Your task to perform on an android device: install app "Booking.com: Hotels and more" Image 0: 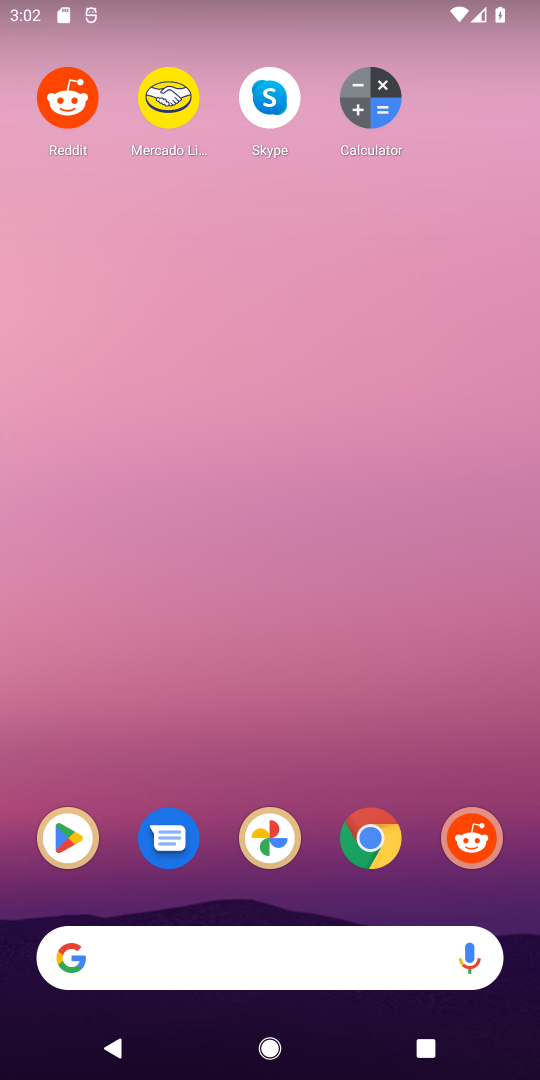
Step 0: click (72, 823)
Your task to perform on an android device: install app "Booking.com: Hotels and more" Image 1: 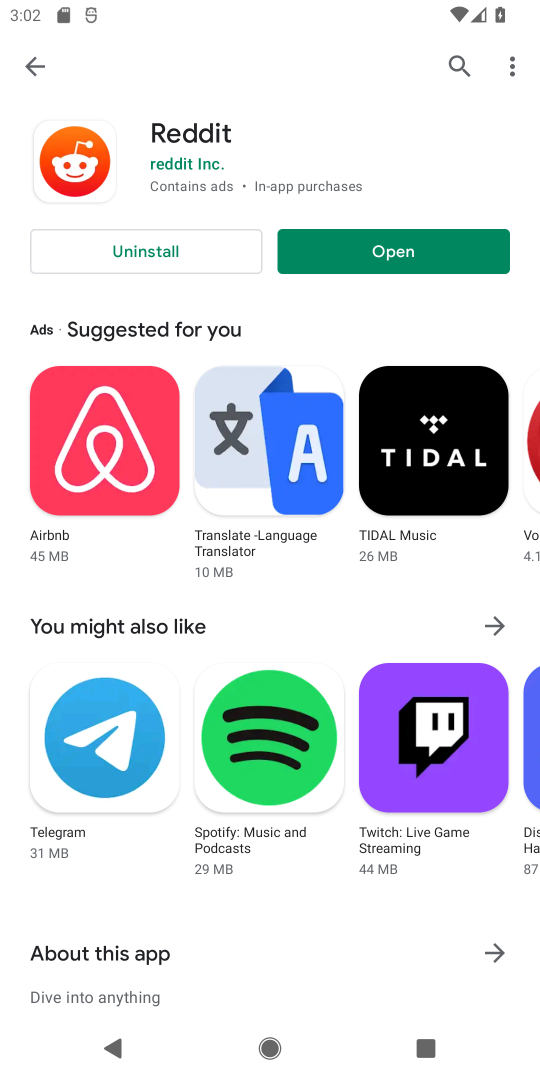
Step 1: click (455, 73)
Your task to perform on an android device: install app "Booking.com: Hotels and more" Image 2: 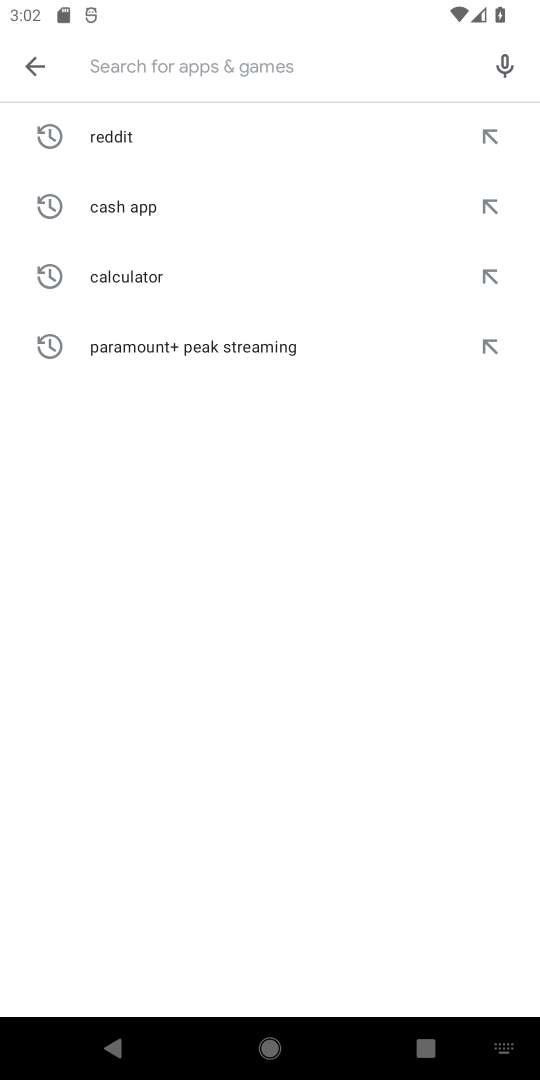
Step 2: type "Booking.com: Hotels and more"
Your task to perform on an android device: install app "Booking.com: Hotels and more" Image 3: 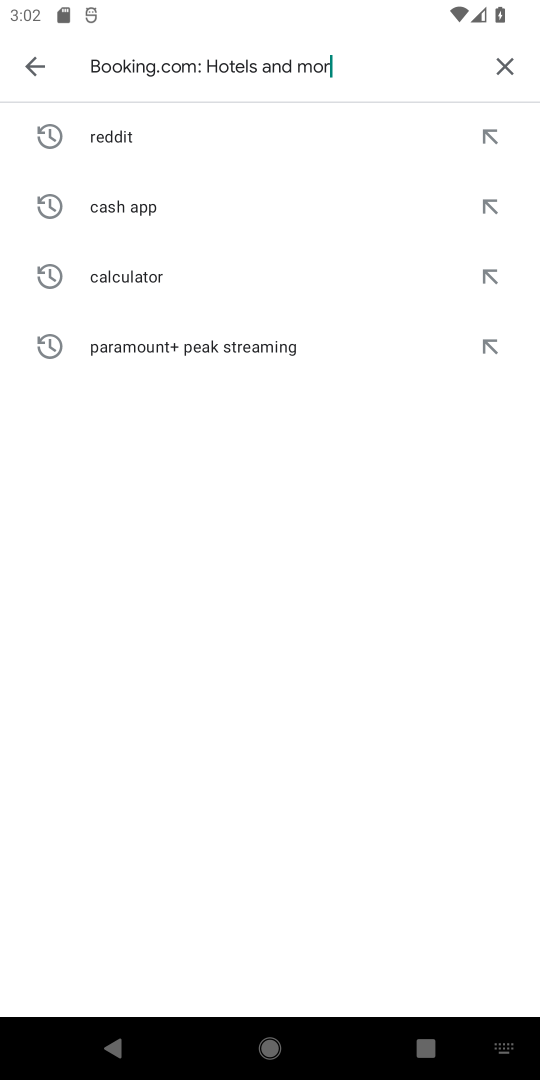
Step 3: type ""
Your task to perform on an android device: install app "Booking.com: Hotels and more" Image 4: 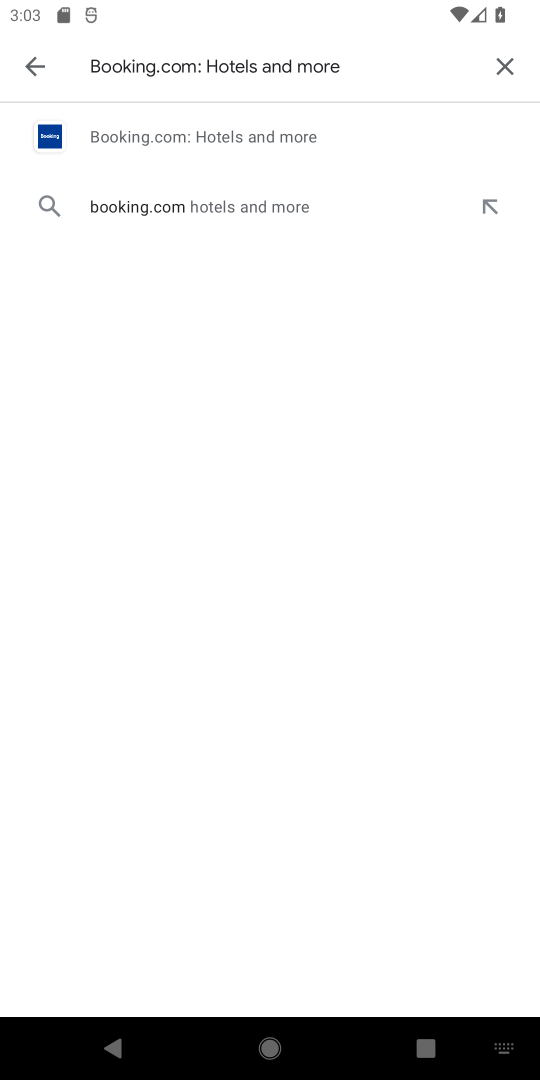
Step 4: click (304, 152)
Your task to perform on an android device: install app "Booking.com: Hotels and more" Image 5: 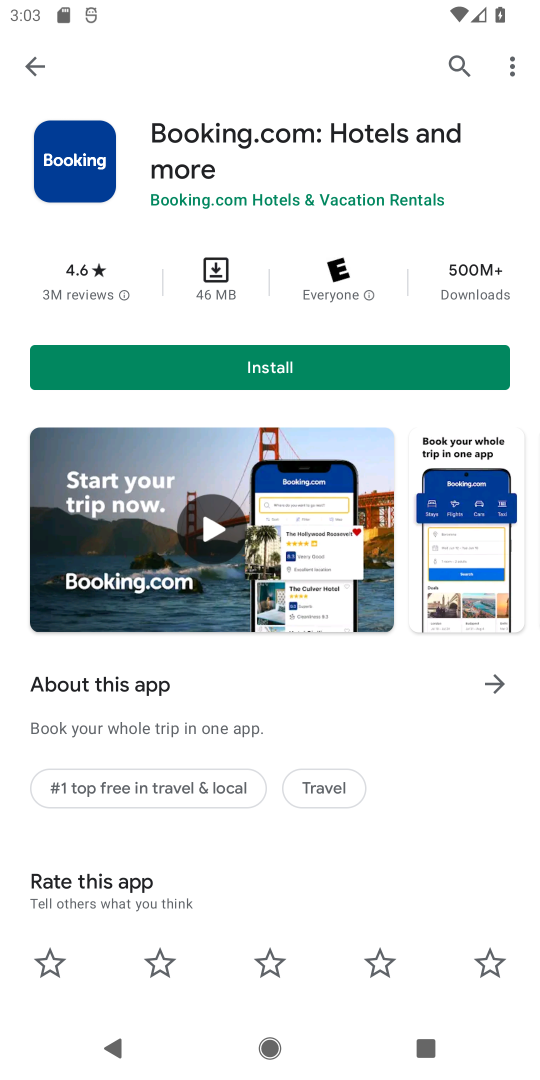
Step 5: click (320, 363)
Your task to perform on an android device: install app "Booking.com: Hotels and more" Image 6: 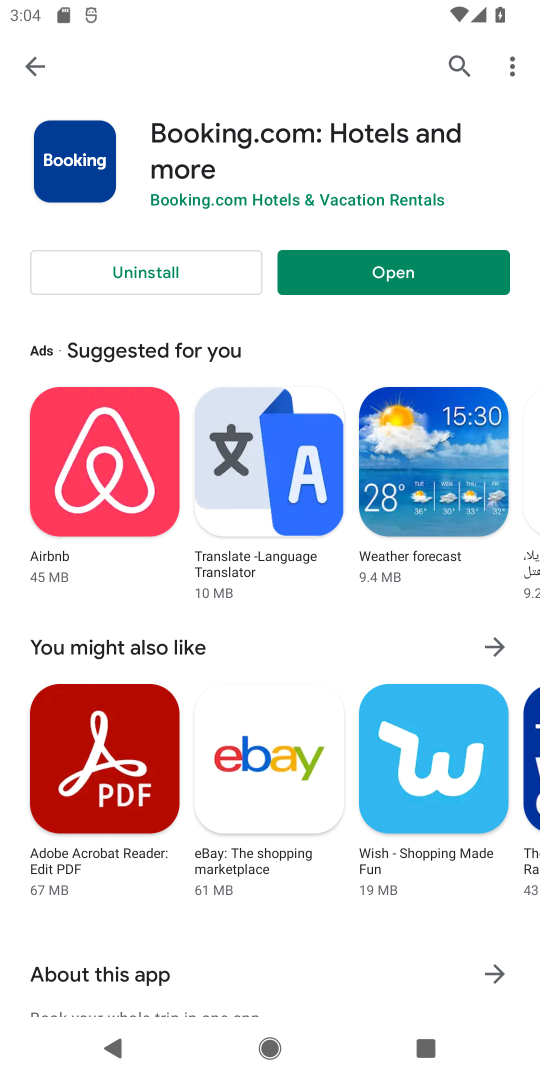
Step 6: task complete